Your task to perform on an android device: What's on my calendar today? Image 0: 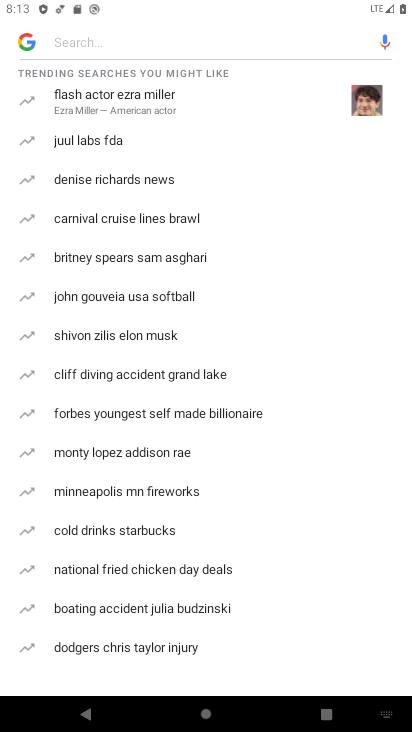
Step 0: press home button
Your task to perform on an android device: What's on my calendar today? Image 1: 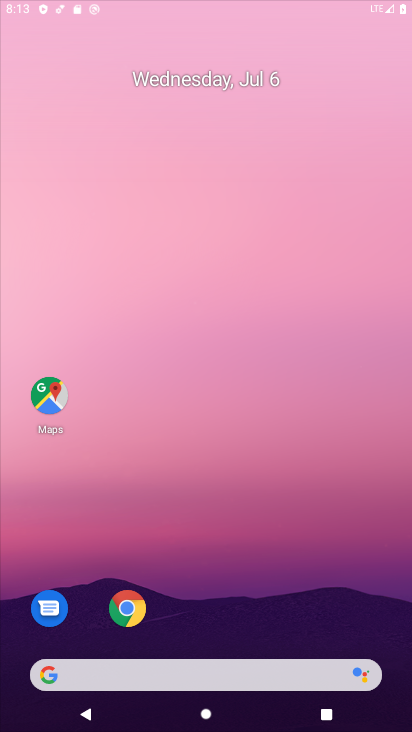
Step 1: drag from (395, 646) to (264, 48)
Your task to perform on an android device: What's on my calendar today? Image 2: 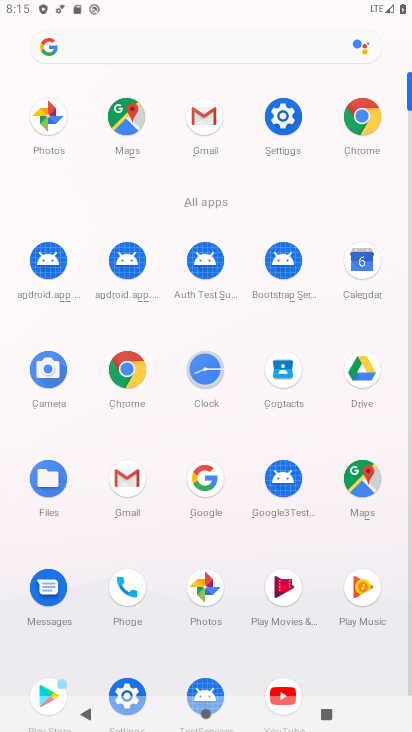
Step 2: click (357, 262)
Your task to perform on an android device: What's on my calendar today? Image 3: 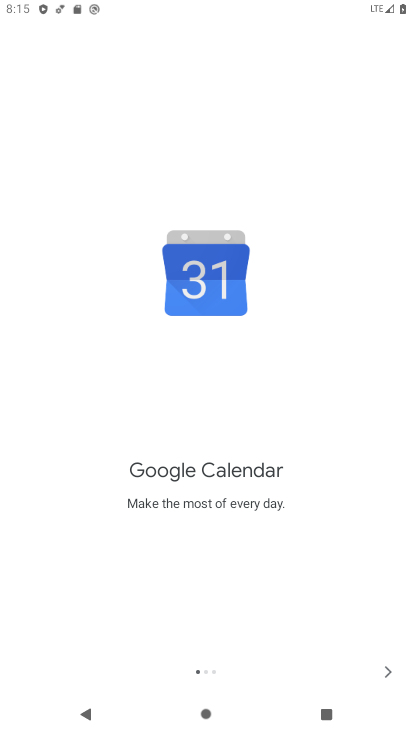
Step 3: click (389, 671)
Your task to perform on an android device: What's on my calendar today? Image 4: 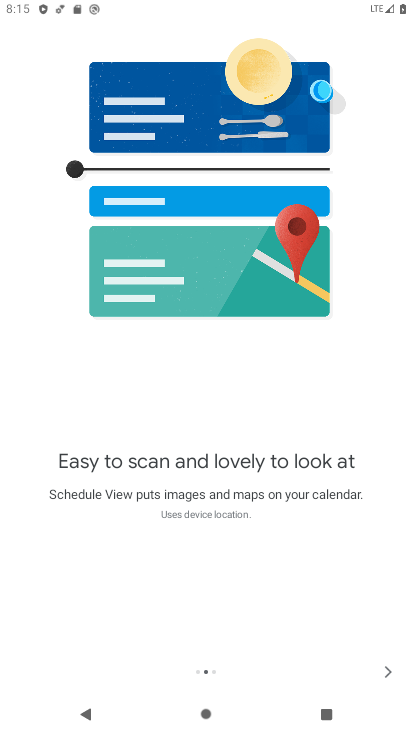
Step 4: click (389, 671)
Your task to perform on an android device: What's on my calendar today? Image 5: 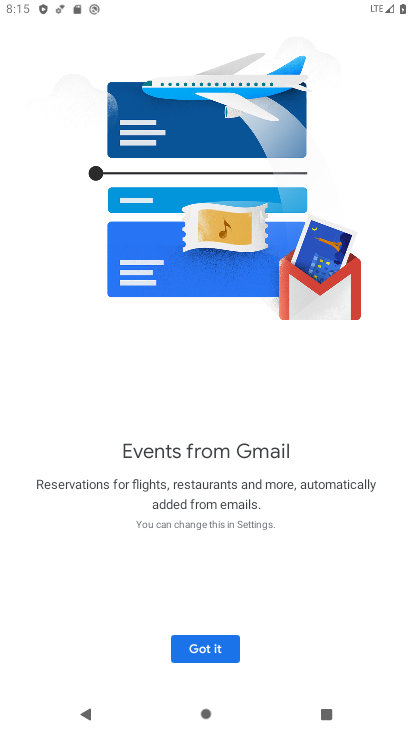
Step 5: click (209, 640)
Your task to perform on an android device: What's on my calendar today? Image 6: 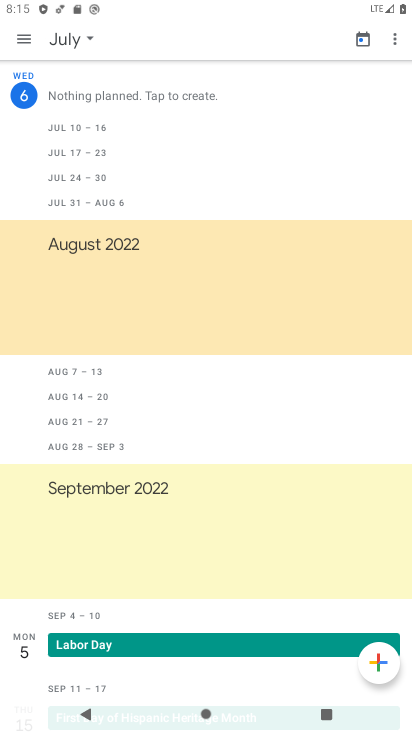
Step 6: click (70, 41)
Your task to perform on an android device: What's on my calendar today? Image 7: 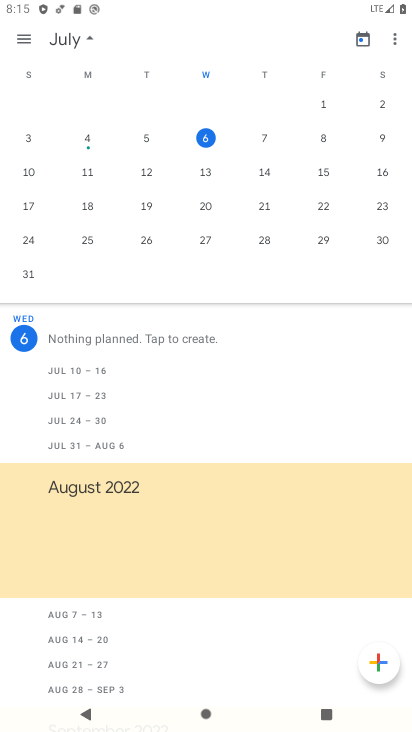
Step 7: click (261, 142)
Your task to perform on an android device: What's on my calendar today? Image 8: 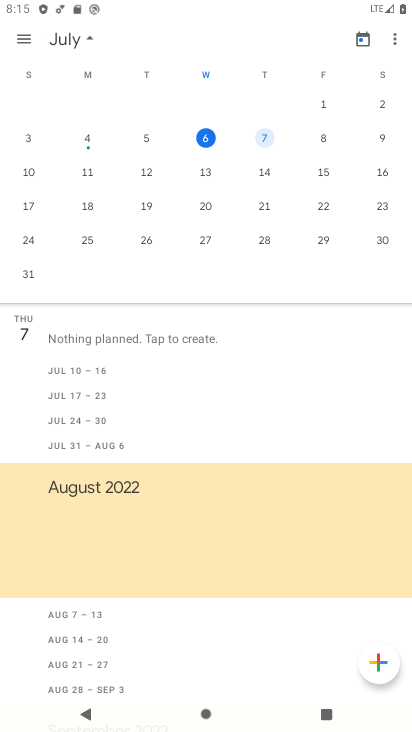
Step 8: task complete